Your task to perform on an android device: change the clock display to analog Image 0: 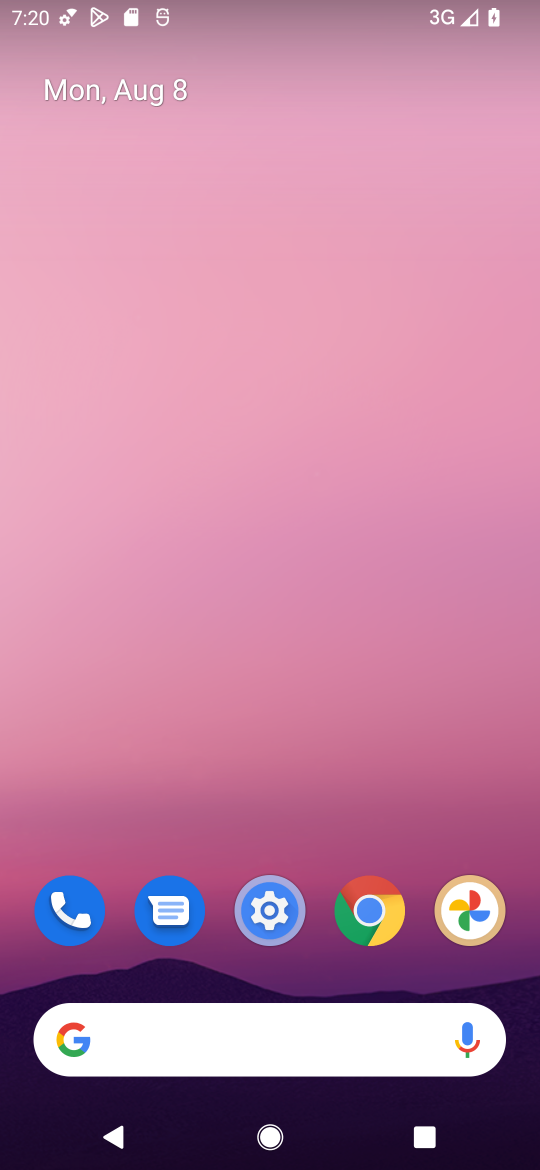
Step 0: drag from (321, 690) to (222, 5)
Your task to perform on an android device: change the clock display to analog Image 1: 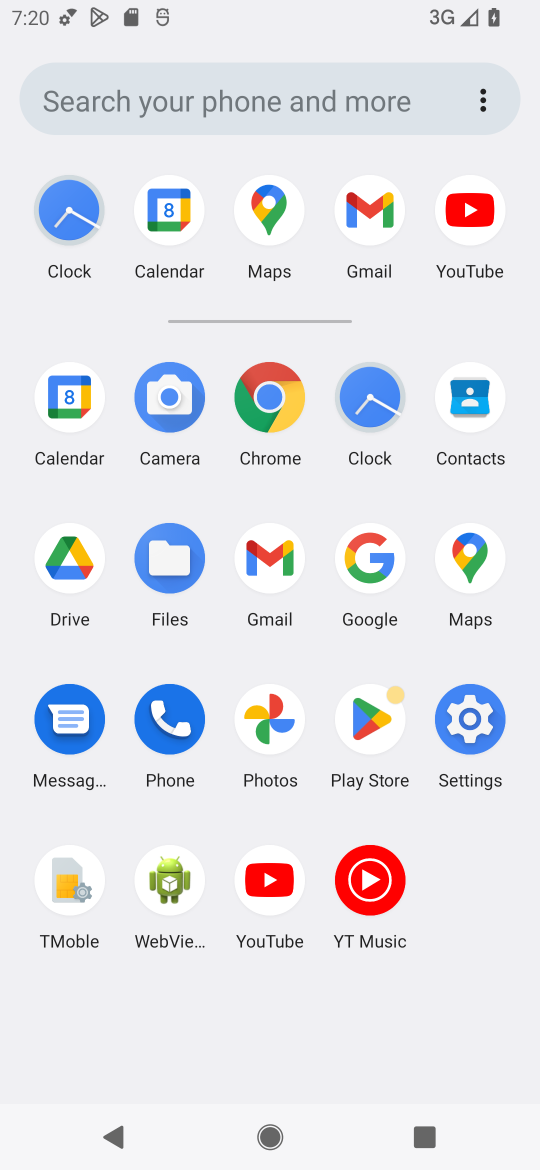
Step 1: click (78, 227)
Your task to perform on an android device: change the clock display to analog Image 2: 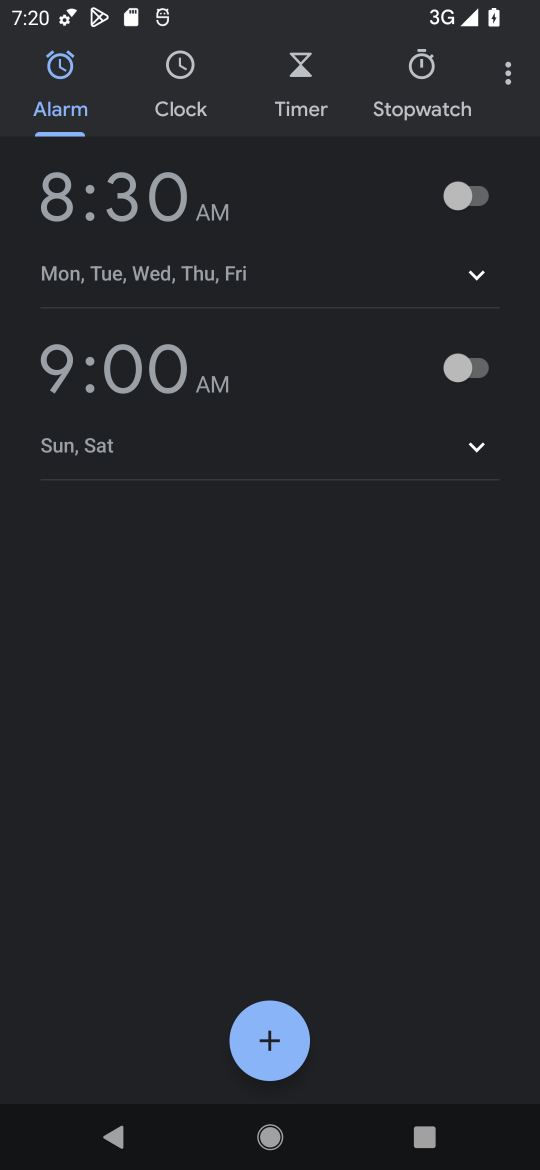
Step 2: click (514, 66)
Your task to perform on an android device: change the clock display to analog Image 3: 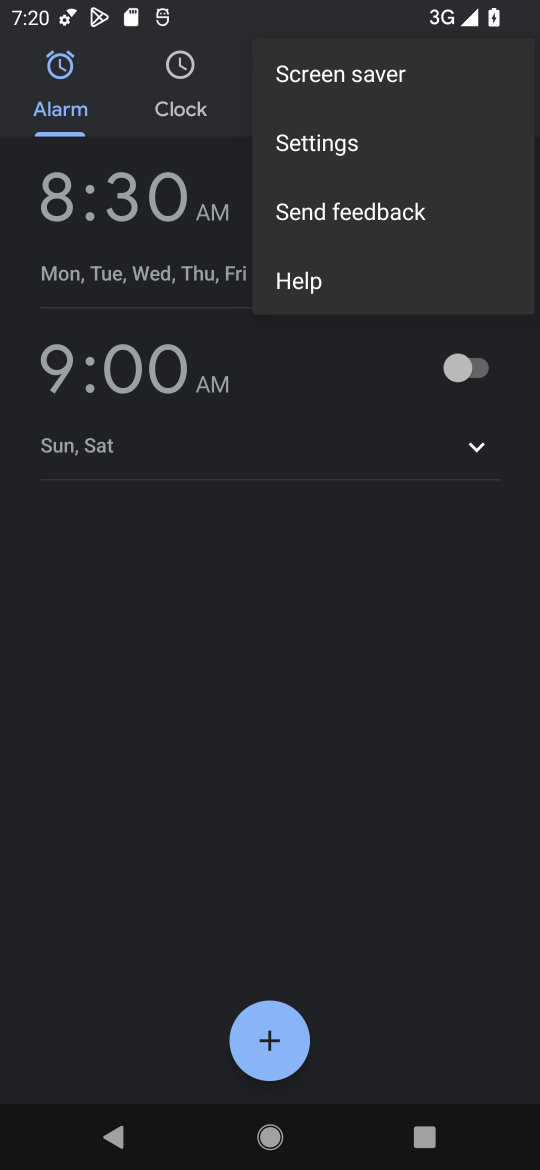
Step 3: click (315, 160)
Your task to perform on an android device: change the clock display to analog Image 4: 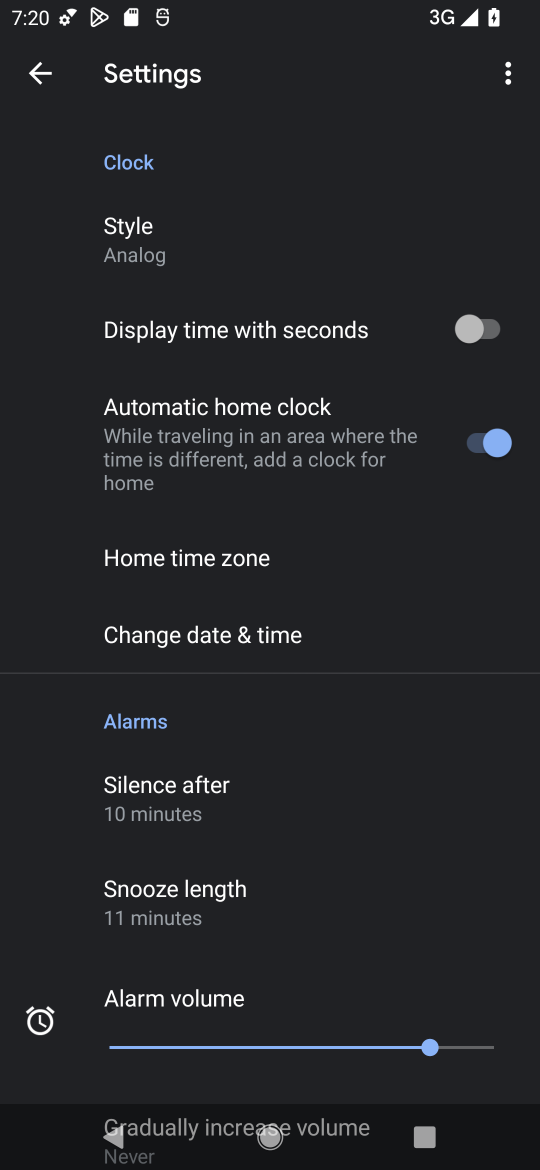
Step 4: click (252, 241)
Your task to perform on an android device: change the clock display to analog Image 5: 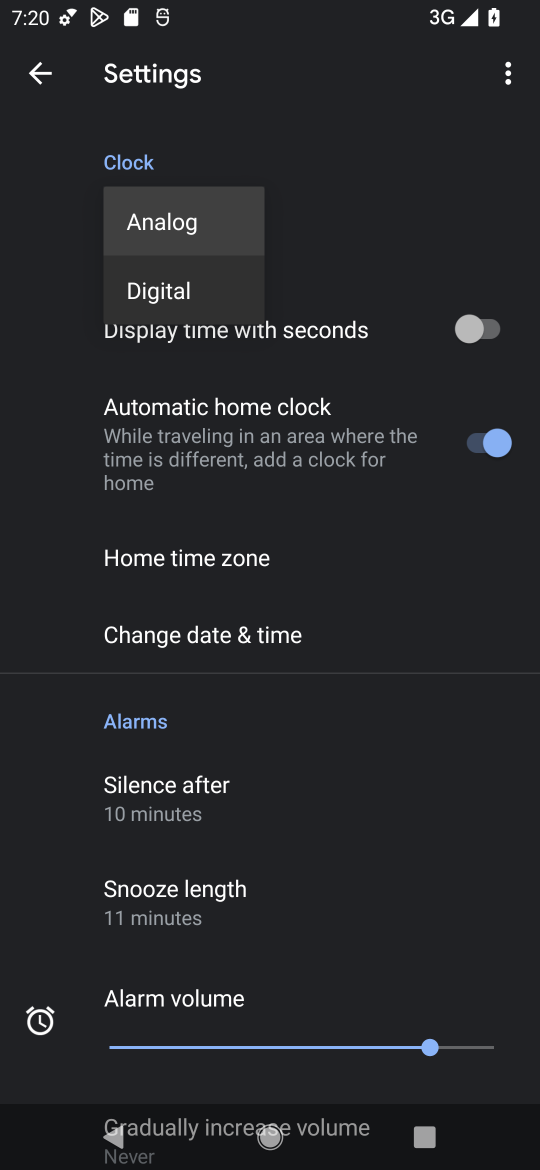
Step 5: click (199, 237)
Your task to perform on an android device: change the clock display to analog Image 6: 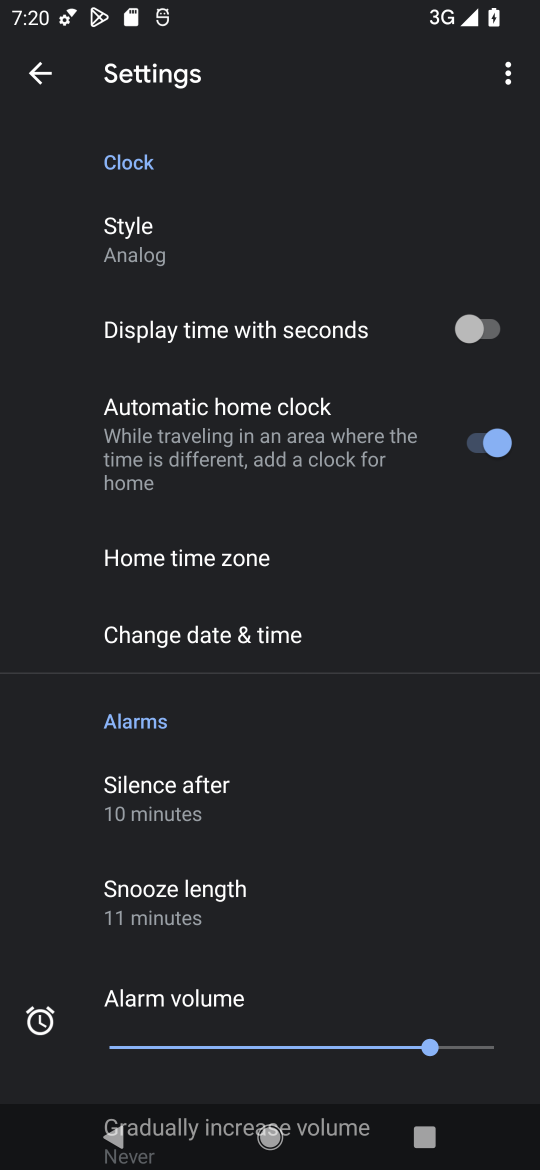
Step 6: task complete